Your task to perform on an android device: turn notification dots on Image 0: 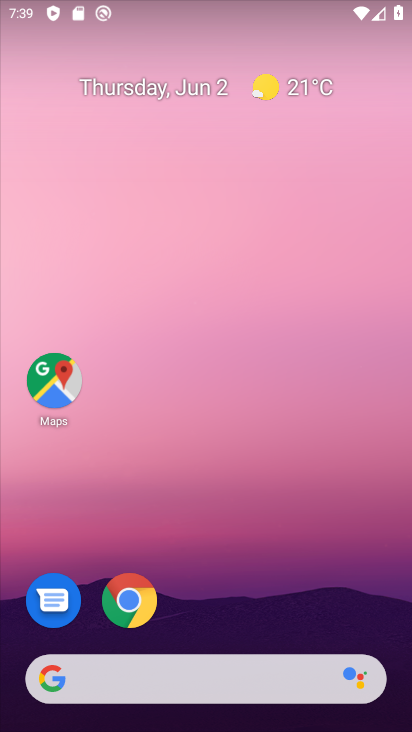
Step 0: drag from (177, 603) to (213, 9)
Your task to perform on an android device: turn notification dots on Image 1: 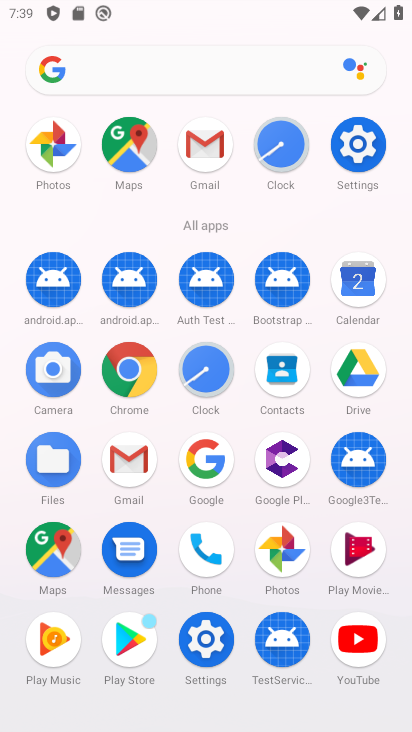
Step 1: click (362, 161)
Your task to perform on an android device: turn notification dots on Image 2: 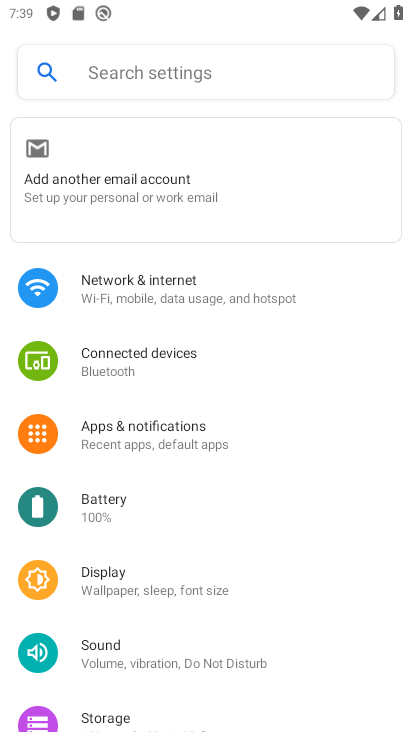
Step 2: click (168, 430)
Your task to perform on an android device: turn notification dots on Image 3: 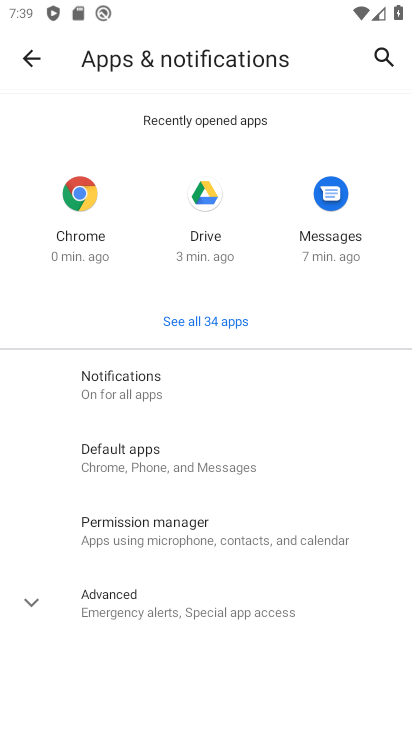
Step 3: click (118, 389)
Your task to perform on an android device: turn notification dots on Image 4: 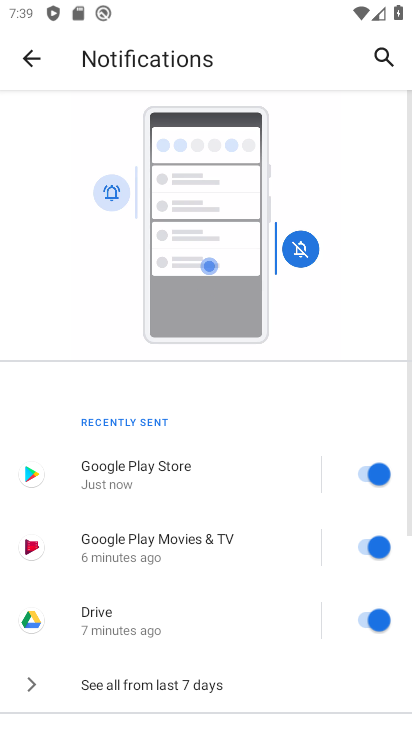
Step 4: drag from (268, 569) to (345, 56)
Your task to perform on an android device: turn notification dots on Image 5: 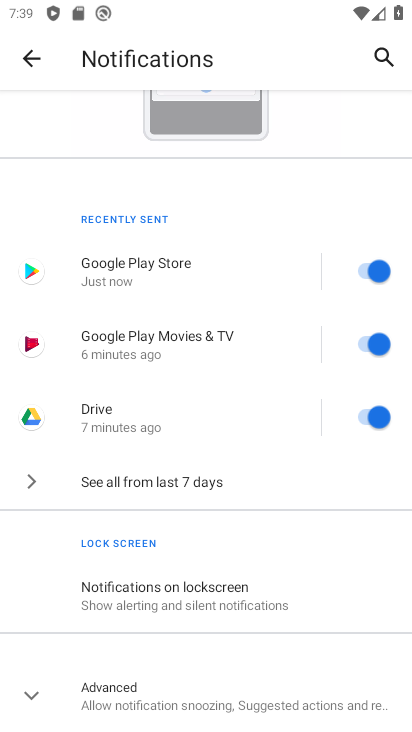
Step 5: drag from (291, 631) to (328, 363)
Your task to perform on an android device: turn notification dots on Image 6: 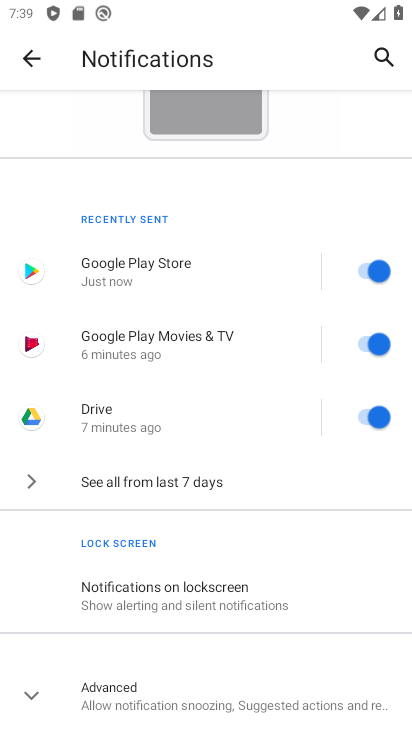
Step 6: click (162, 681)
Your task to perform on an android device: turn notification dots on Image 7: 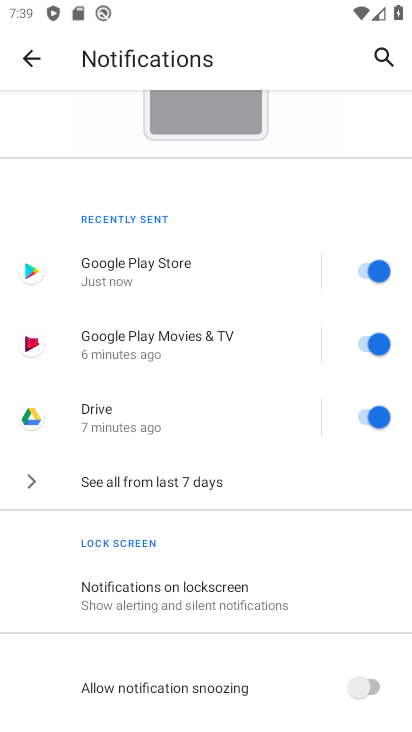
Step 7: drag from (232, 677) to (234, 326)
Your task to perform on an android device: turn notification dots on Image 8: 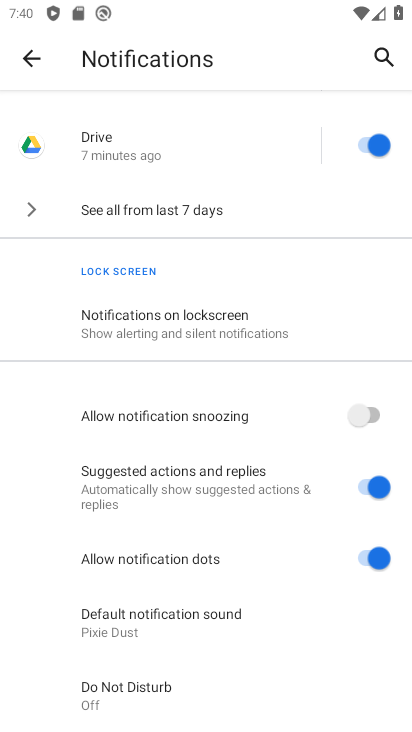
Step 8: click (374, 551)
Your task to perform on an android device: turn notification dots on Image 9: 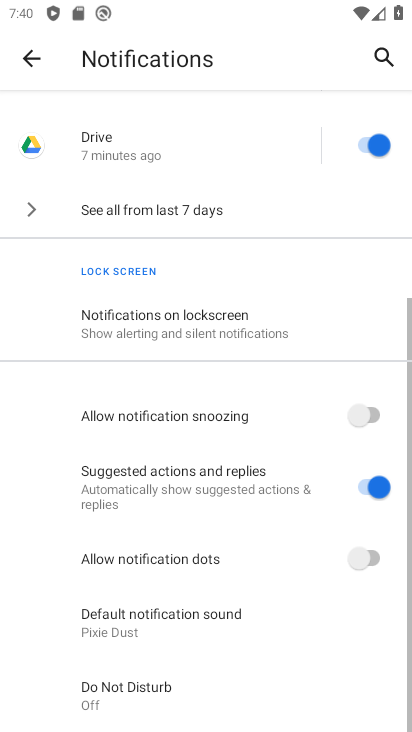
Step 9: task complete